Your task to perform on an android device: Open internet settings Image 0: 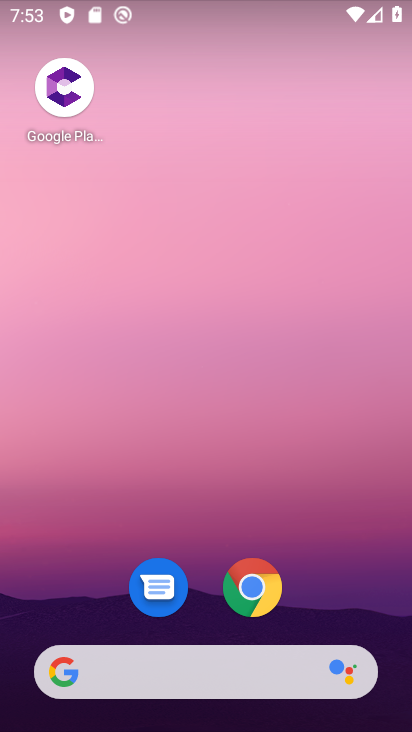
Step 0: drag from (242, 358) to (242, 245)
Your task to perform on an android device: Open internet settings Image 1: 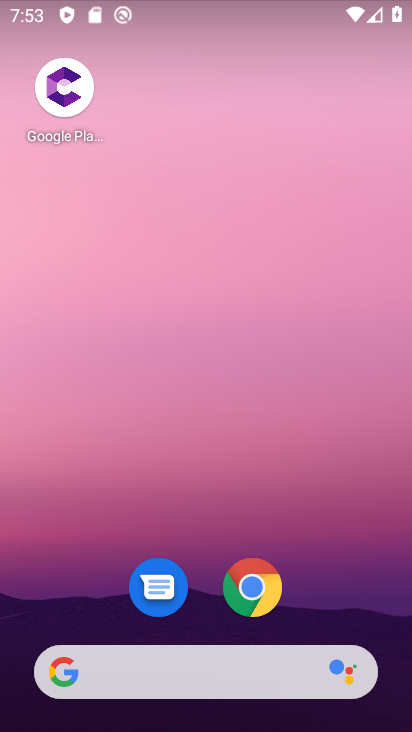
Step 1: drag from (202, 623) to (253, 217)
Your task to perform on an android device: Open internet settings Image 2: 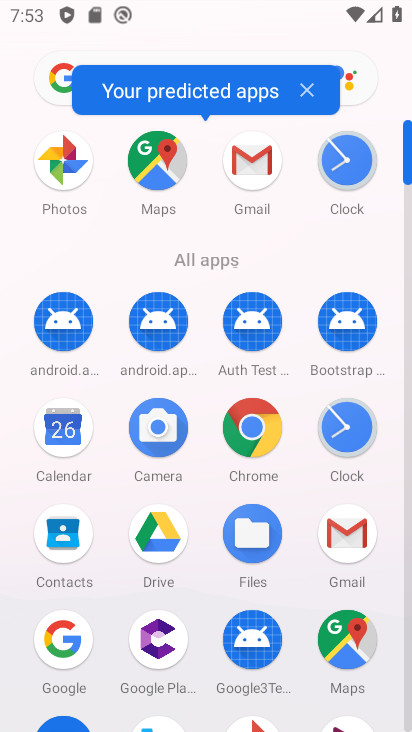
Step 2: drag from (121, 529) to (174, 166)
Your task to perform on an android device: Open internet settings Image 3: 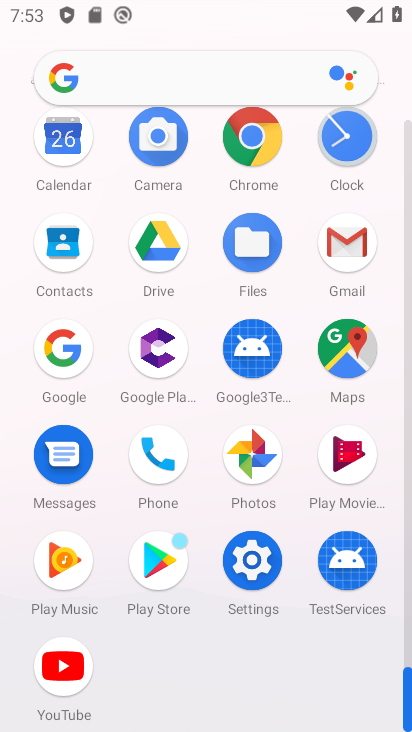
Step 3: click (244, 574)
Your task to perform on an android device: Open internet settings Image 4: 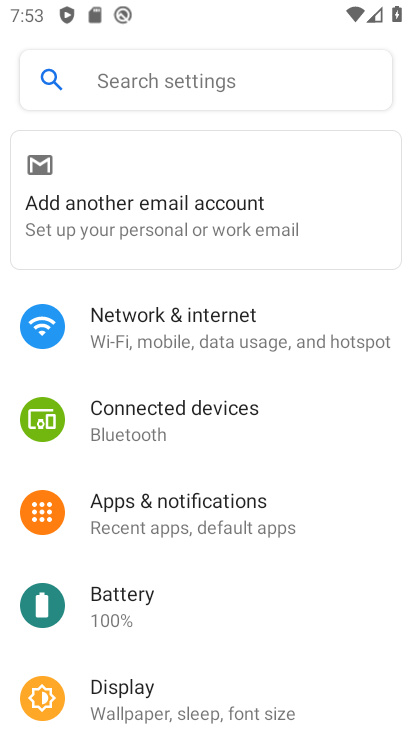
Step 4: click (226, 331)
Your task to perform on an android device: Open internet settings Image 5: 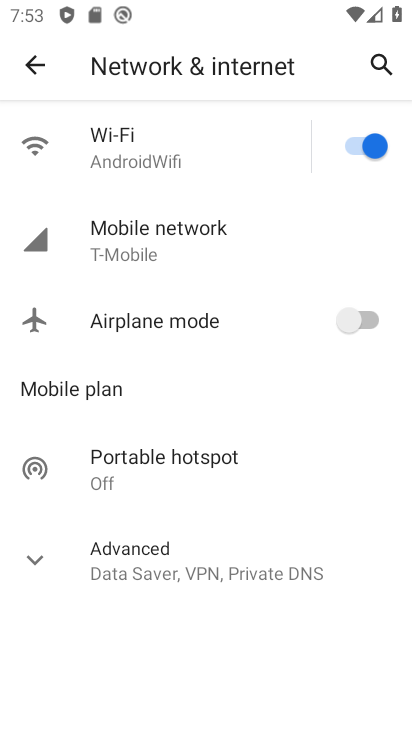
Step 5: task complete